Your task to perform on an android device: Open Google Image 0: 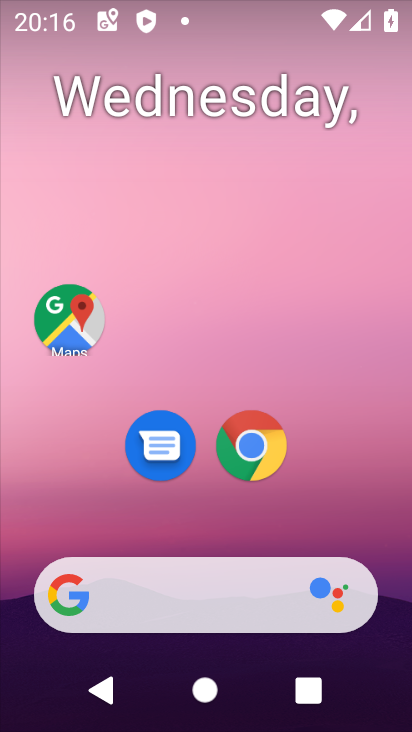
Step 0: drag from (273, 519) to (304, 151)
Your task to perform on an android device: Open Google Image 1: 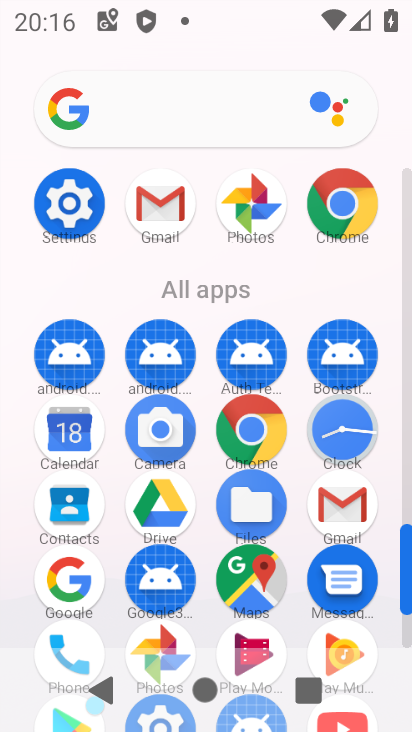
Step 1: click (68, 582)
Your task to perform on an android device: Open Google Image 2: 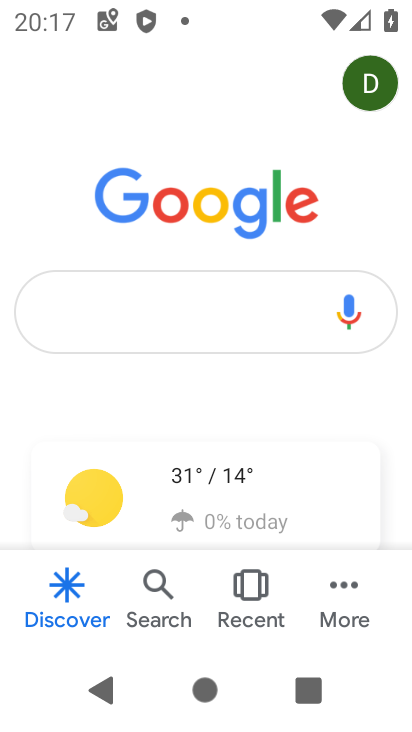
Step 2: task complete